Your task to perform on an android device: Go to internet settings Image 0: 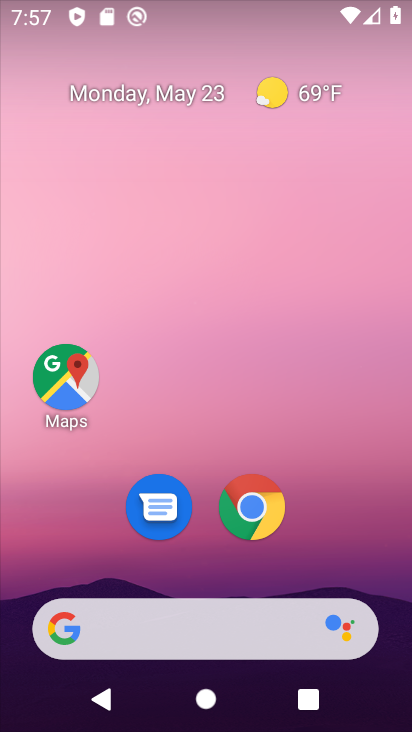
Step 0: drag from (355, 593) to (346, 15)
Your task to perform on an android device: Go to internet settings Image 1: 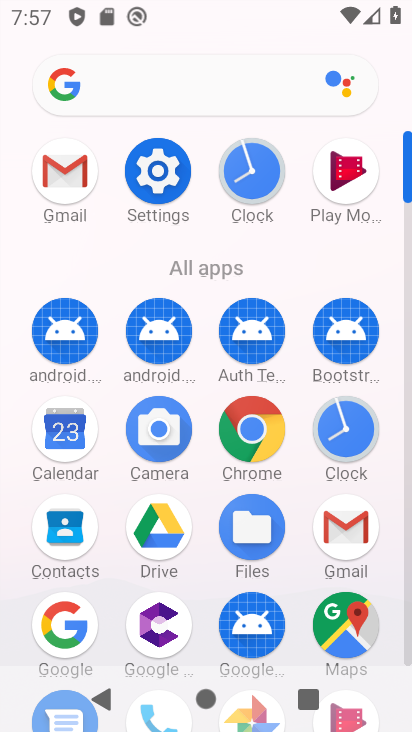
Step 1: click (151, 176)
Your task to perform on an android device: Go to internet settings Image 2: 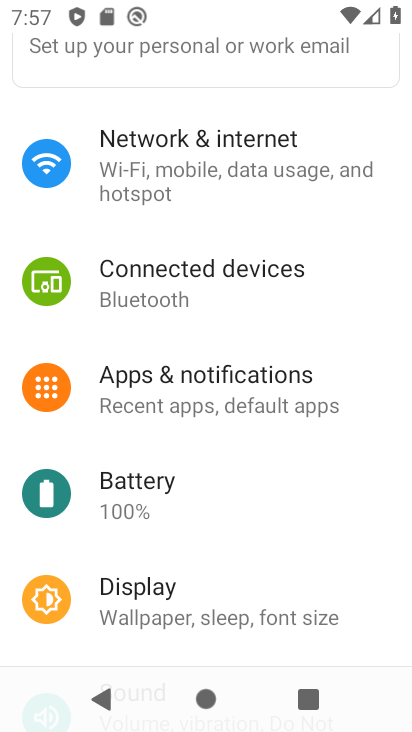
Step 2: click (151, 176)
Your task to perform on an android device: Go to internet settings Image 3: 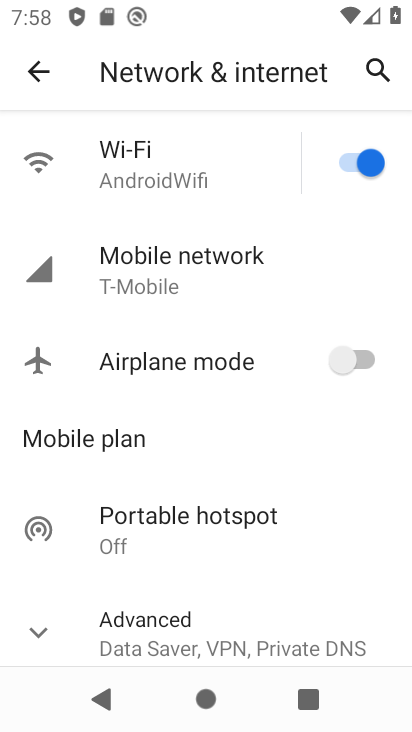
Step 3: task complete